Your task to perform on an android device: Go to calendar. Show me events next week Image 0: 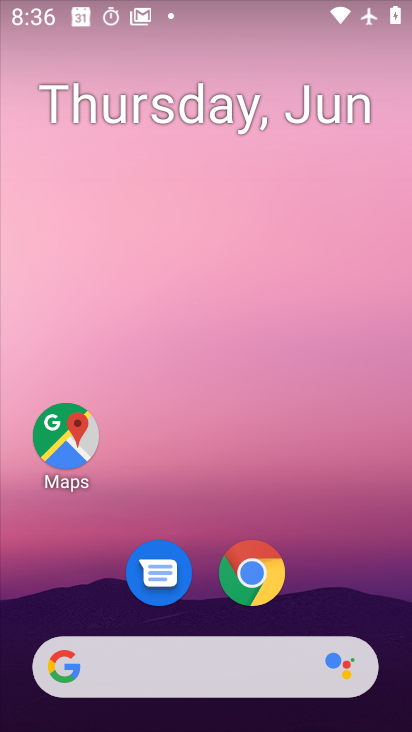
Step 0: drag from (249, 626) to (267, 265)
Your task to perform on an android device: Go to calendar. Show me events next week Image 1: 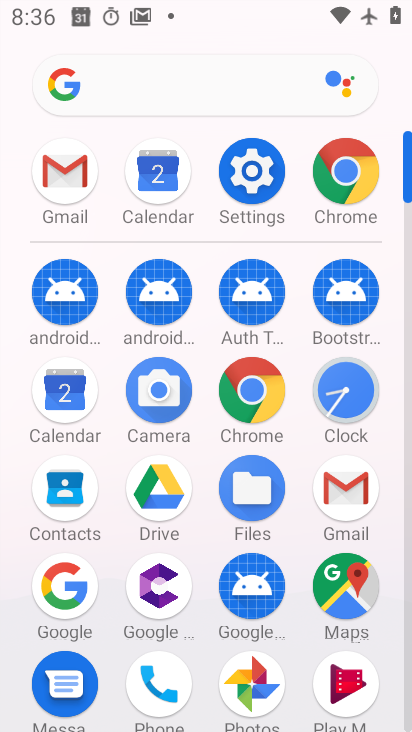
Step 1: click (56, 387)
Your task to perform on an android device: Go to calendar. Show me events next week Image 2: 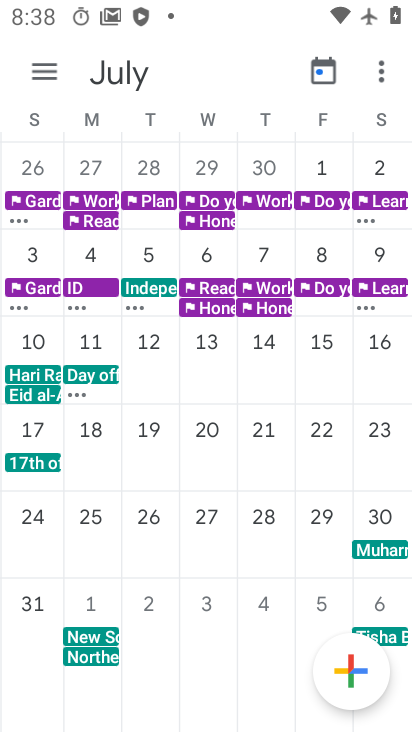
Step 2: task complete